Your task to perform on an android device: Do I have any events tomorrow? Image 0: 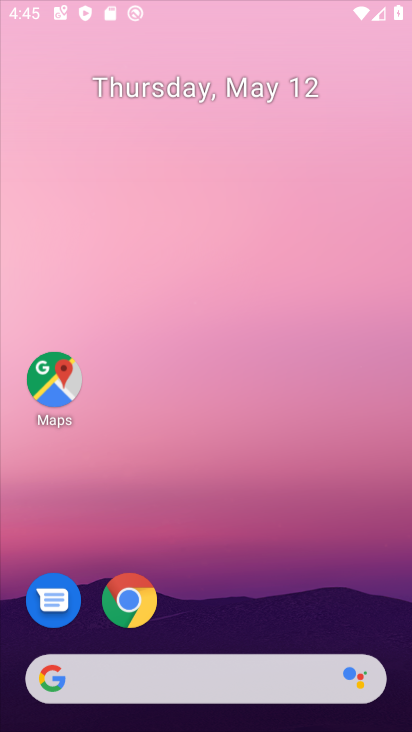
Step 0: click (285, 189)
Your task to perform on an android device: Do I have any events tomorrow? Image 1: 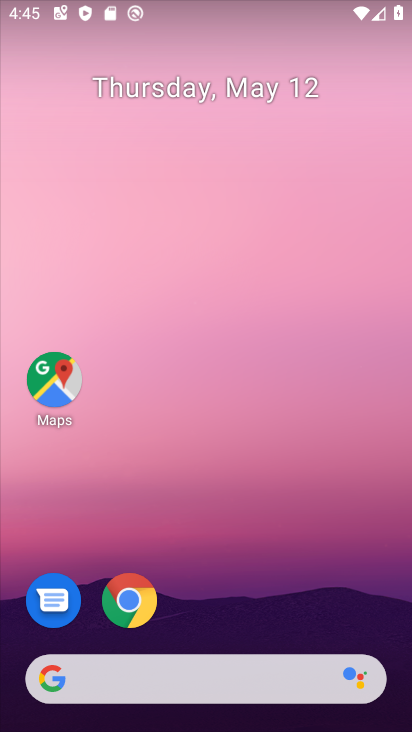
Step 1: drag from (238, 616) to (240, 411)
Your task to perform on an android device: Do I have any events tomorrow? Image 2: 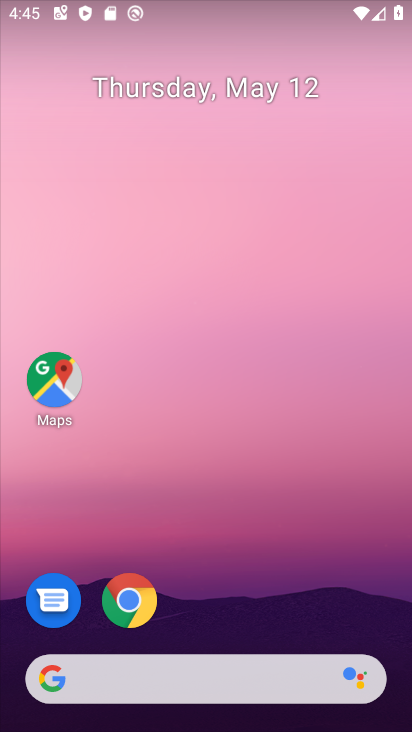
Step 2: drag from (190, 600) to (238, 214)
Your task to perform on an android device: Do I have any events tomorrow? Image 3: 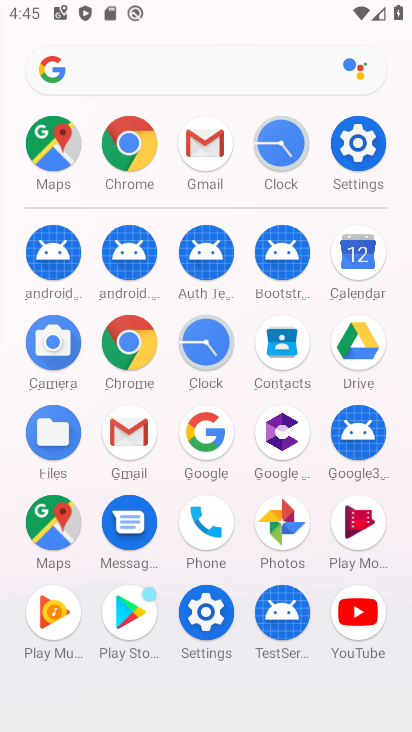
Step 3: drag from (251, 633) to (257, 303)
Your task to perform on an android device: Do I have any events tomorrow? Image 4: 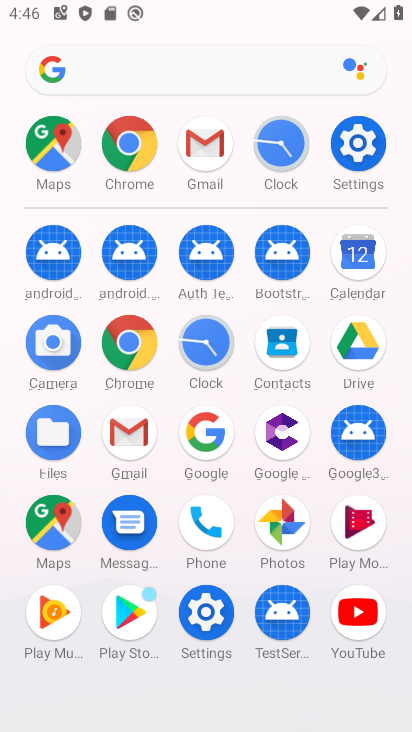
Step 4: click (355, 241)
Your task to perform on an android device: Do I have any events tomorrow? Image 5: 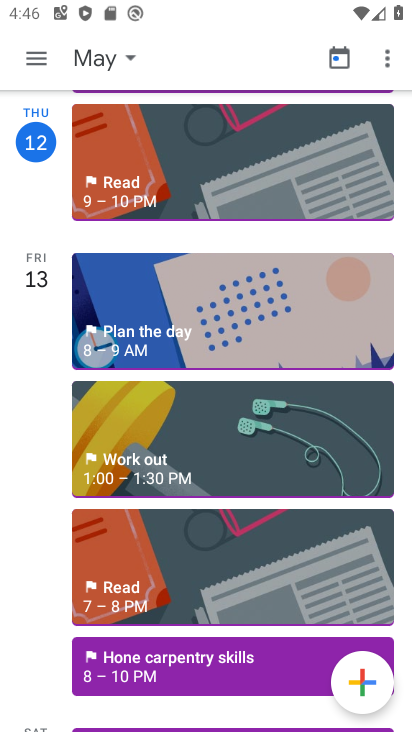
Step 5: drag from (239, 610) to (247, 394)
Your task to perform on an android device: Do I have any events tomorrow? Image 6: 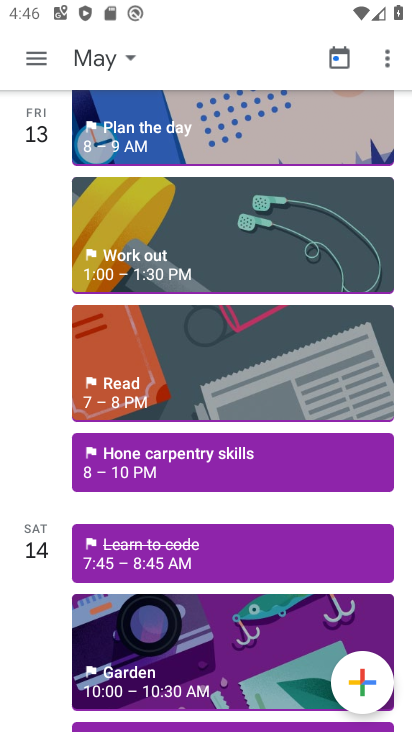
Step 6: drag from (230, 316) to (273, 596)
Your task to perform on an android device: Do I have any events tomorrow? Image 7: 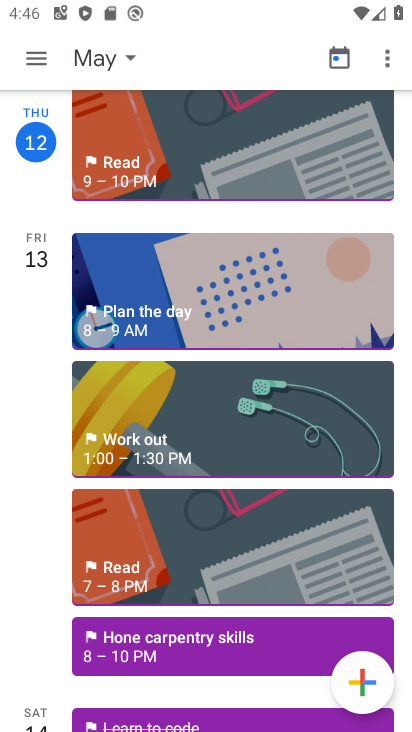
Step 7: click (118, 52)
Your task to perform on an android device: Do I have any events tomorrow? Image 8: 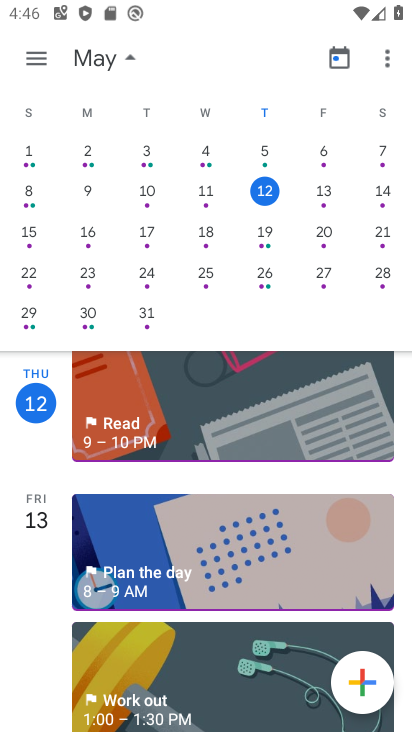
Step 8: click (328, 183)
Your task to perform on an android device: Do I have any events tomorrow? Image 9: 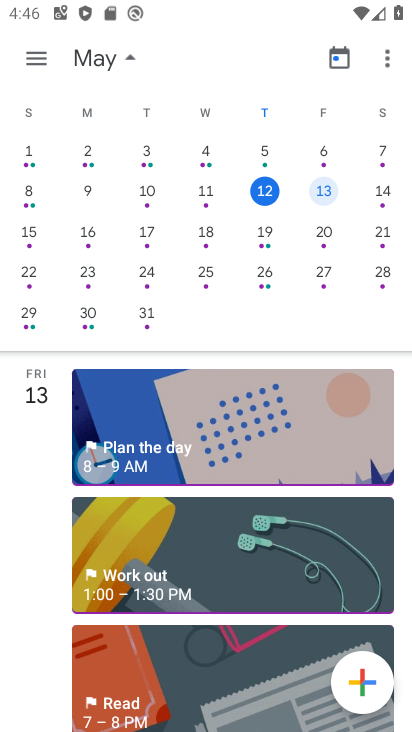
Step 9: task complete